Your task to perform on an android device: turn on data saver in the chrome app Image 0: 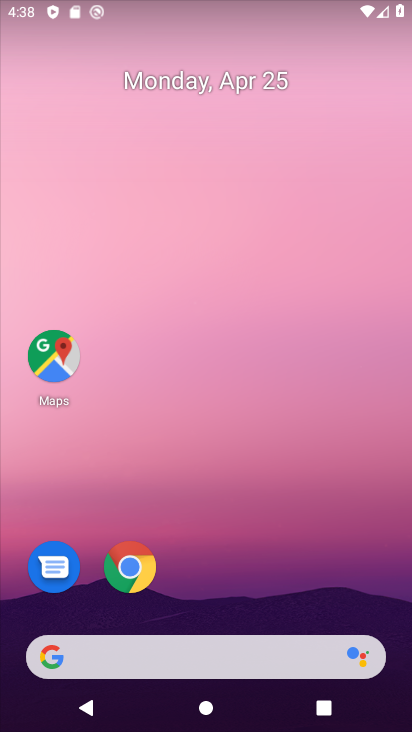
Step 0: click (138, 559)
Your task to perform on an android device: turn on data saver in the chrome app Image 1: 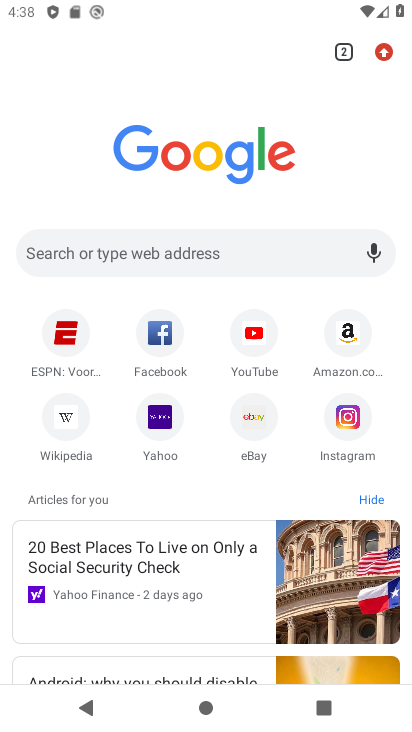
Step 1: drag from (383, 52) to (220, 499)
Your task to perform on an android device: turn on data saver in the chrome app Image 2: 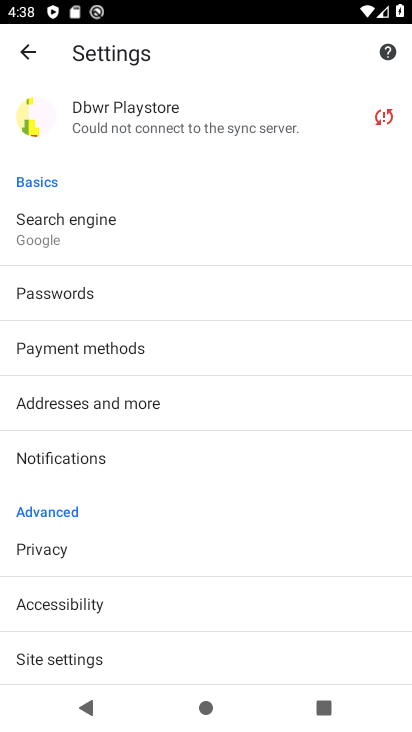
Step 2: drag from (129, 620) to (290, 162)
Your task to perform on an android device: turn on data saver in the chrome app Image 3: 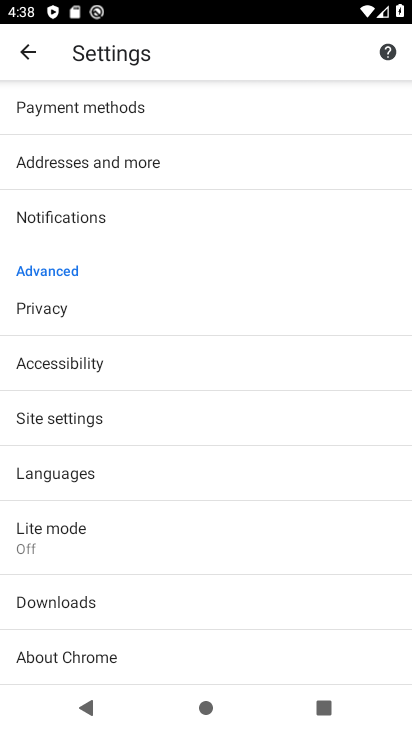
Step 3: click (60, 532)
Your task to perform on an android device: turn on data saver in the chrome app Image 4: 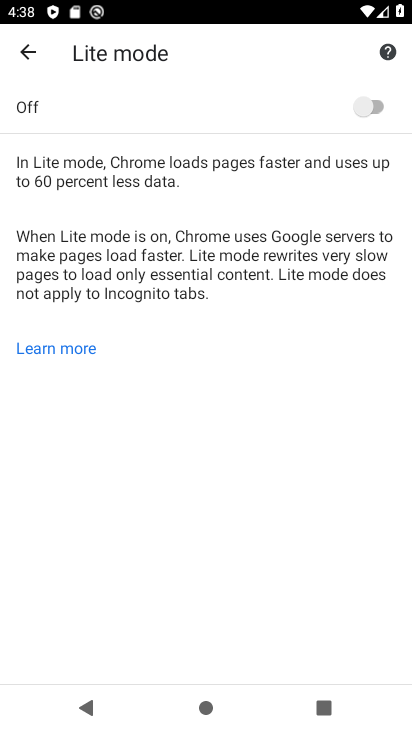
Step 4: click (375, 108)
Your task to perform on an android device: turn on data saver in the chrome app Image 5: 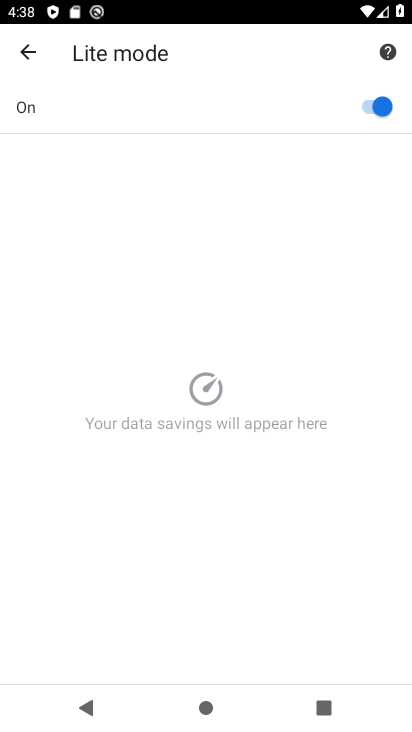
Step 5: task complete